Your task to perform on an android device: Go to accessibility settings Image 0: 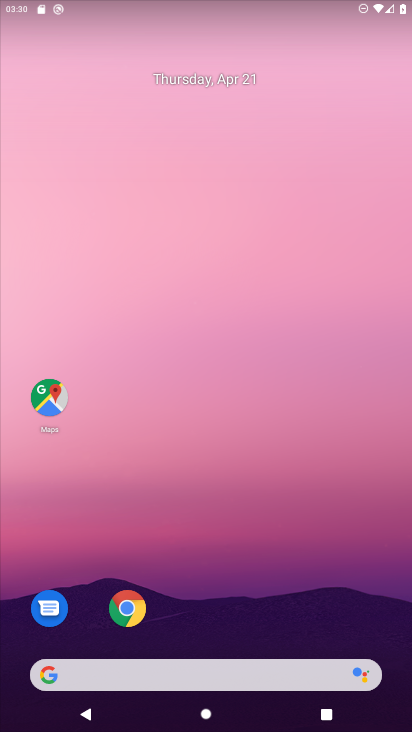
Step 0: drag from (228, 644) to (225, 162)
Your task to perform on an android device: Go to accessibility settings Image 1: 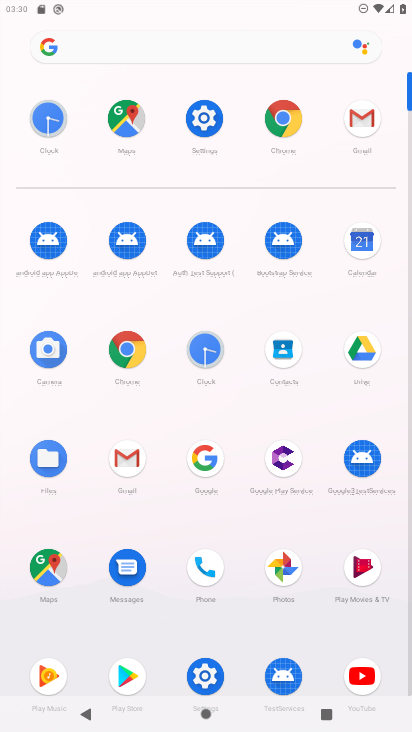
Step 1: click (209, 672)
Your task to perform on an android device: Go to accessibility settings Image 2: 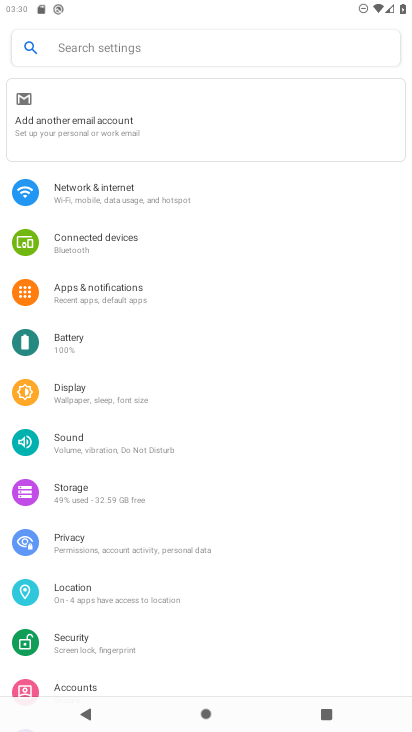
Step 2: drag from (183, 619) to (270, 143)
Your task to perform on an android device: Go to accessibility settings Image 3: 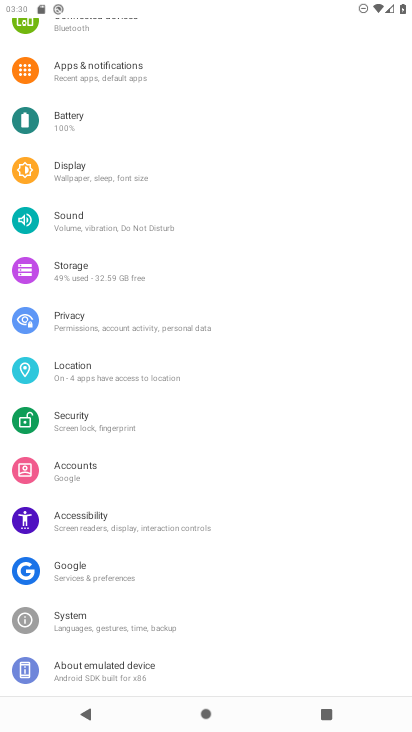
Step 3: click (129, 511)
Your task to perform on an android device: Go to accessibility settings Image 4: 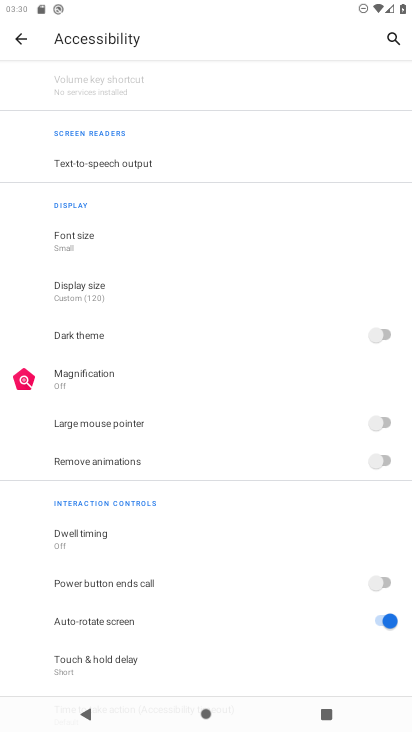
Step 4: task complete